Your task to perform on an android device: star an email in the gmail app Image 0: 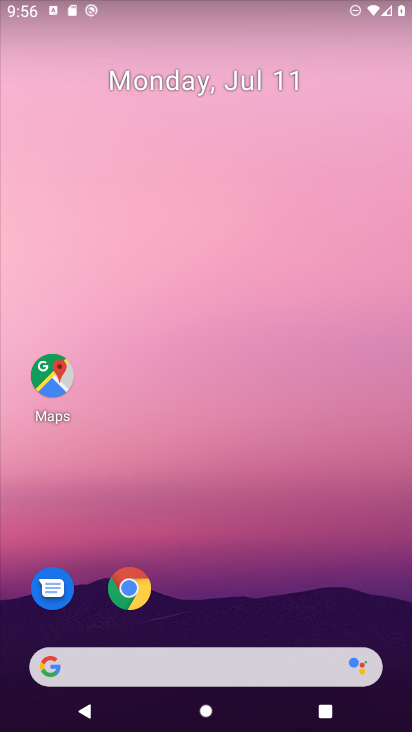
Step 0: drag from (378, 586) to (194, 21)
Your task to perform on an android device: star an email in the gmail app Image 1: 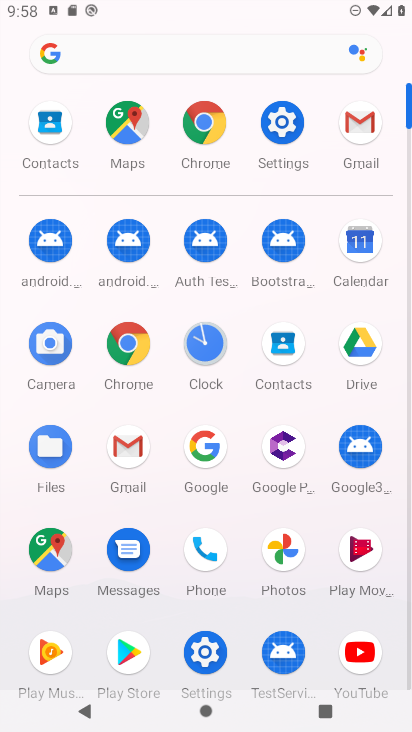
Step 1: click (124, 449)
Your task to perform on an android device: star an email in the gmail app Image 2: 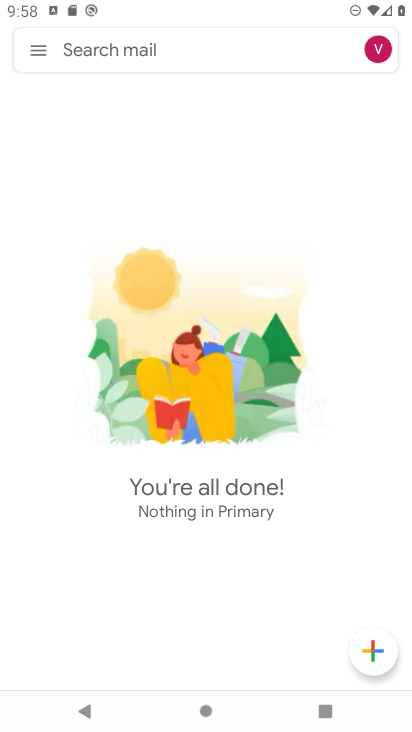
Step 2: task complete